Your task to perform on an android device: Go to battery settings Image 0: 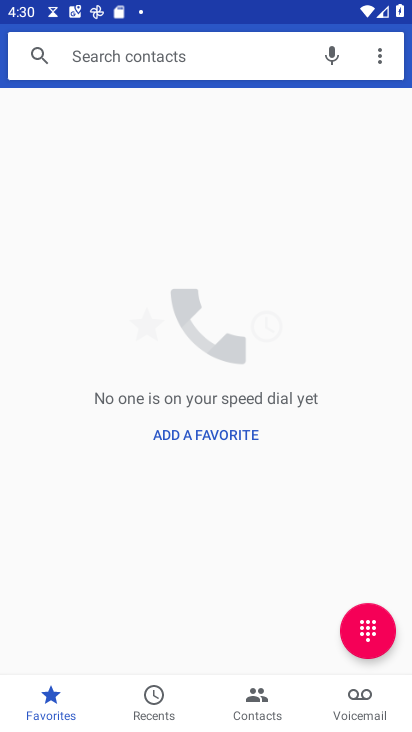
Step 0: press home button
Your task to perform on an android device: Go to battery settings Image 1: 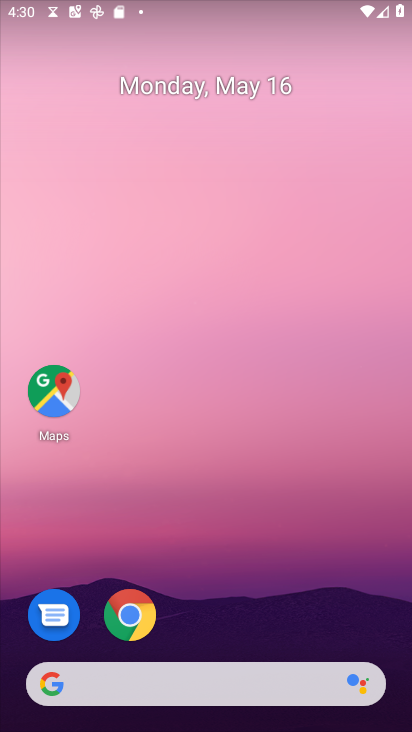
Step 1: drag from (213, 630) to (353, 194)
Your task to perform on an android device: Go to battery settings Image 2: 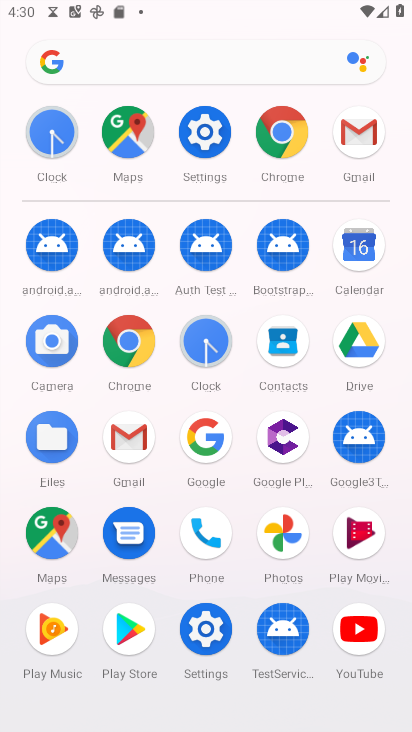
Step 2: click (201, 146)
Your task to perform on an android device: Go to battery settings Image 3: 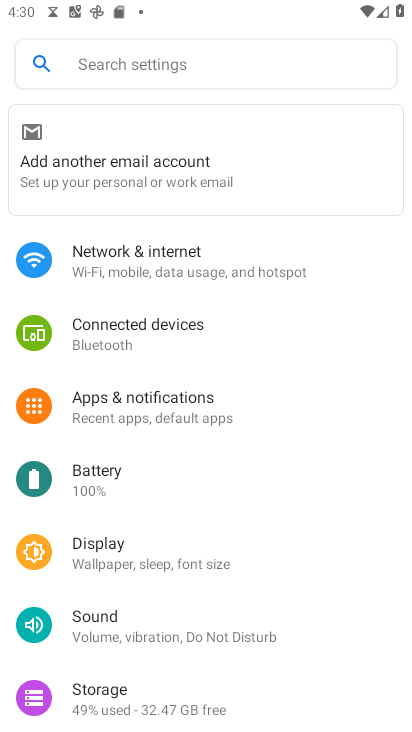
Step 3: click (110, 494)
Your task to perform on an android device: Go to battery settings Image 4: 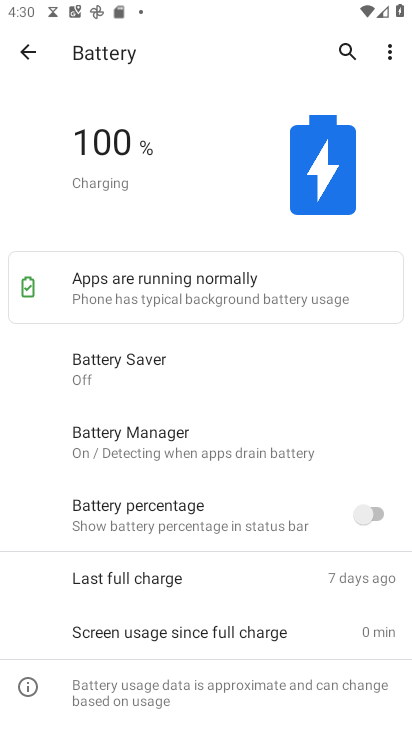
Step 4: task complete